Your task to perform on an android device: Open calendar and show me the fourth week of next month Image 0: 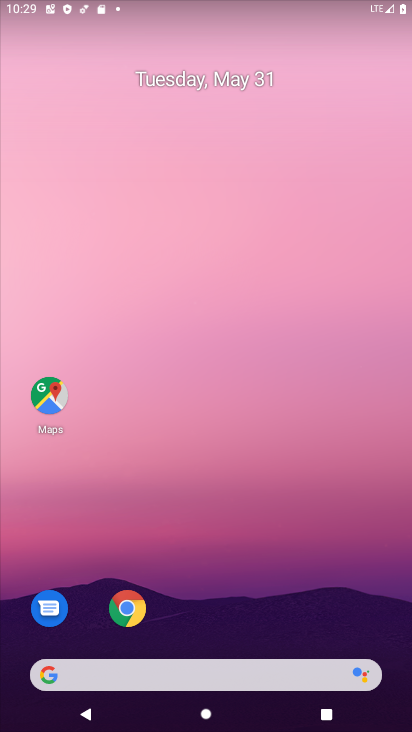
Step 0: drag from (229, 651) to (338, 14)
Your task to perform on an android device: Open calendar and show me the fourth week of next month Image 1: 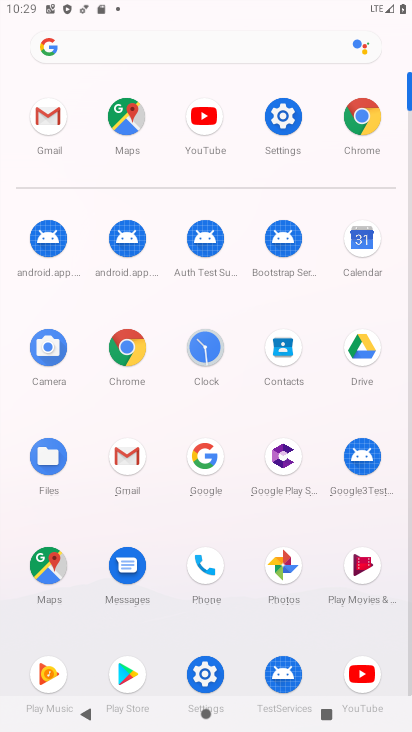
Step 1: click (367, 245)
Your task to perform on an android device: Open calendar and show me the fourth week of next month Image 2: 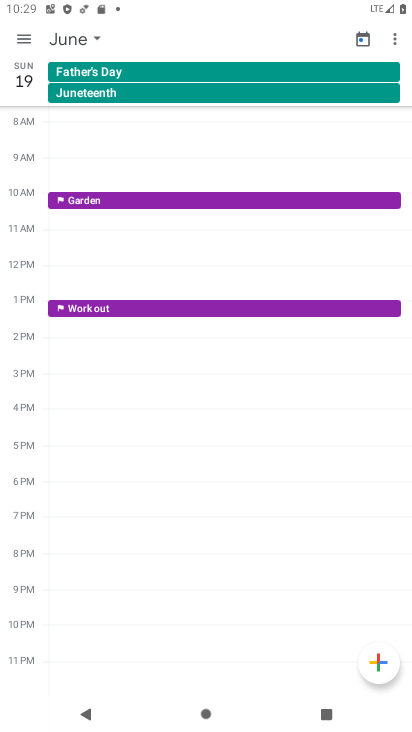
Step 2: click (26, 43)
Your task to perform on an android device: Open calendar and show me the fourth week of next month Image 3: 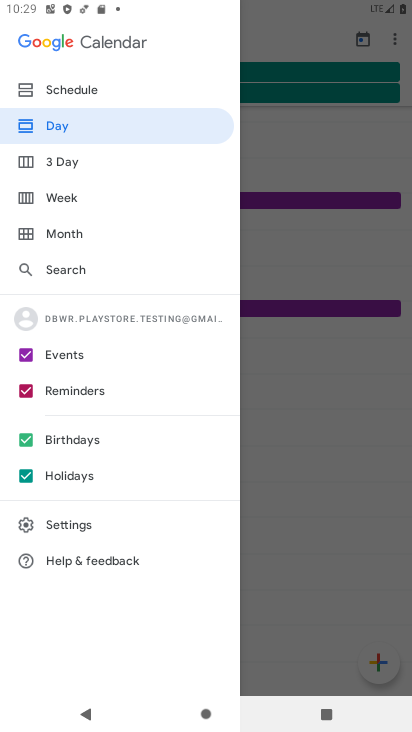
Step 3: click (53, 198)
Your task to perform on an android device: Open calendar and show me the fourth week of next month Image 4: 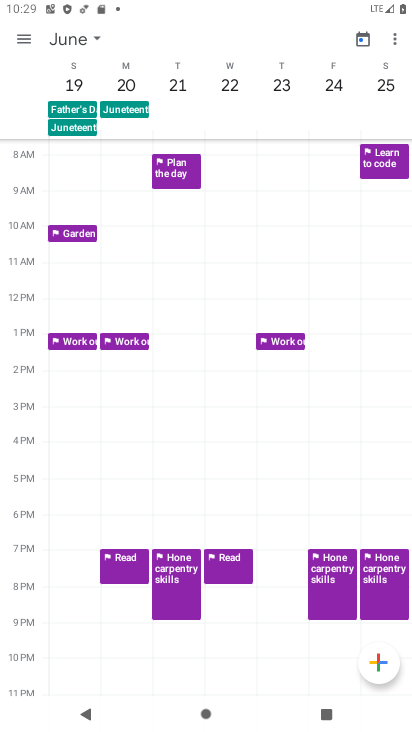
Step 4: task complete